Your task to perform on an android device: Go to display settings Image 0: 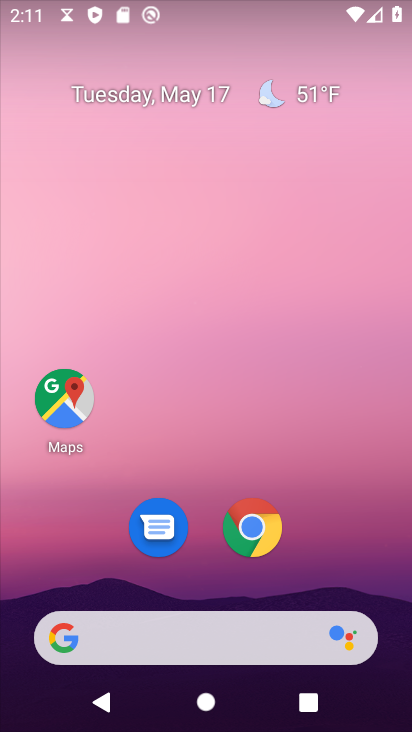
Step 0: drag from (346, 588) to (319, 64)
Your task to perform on an android device: Go to display settings Image 1: 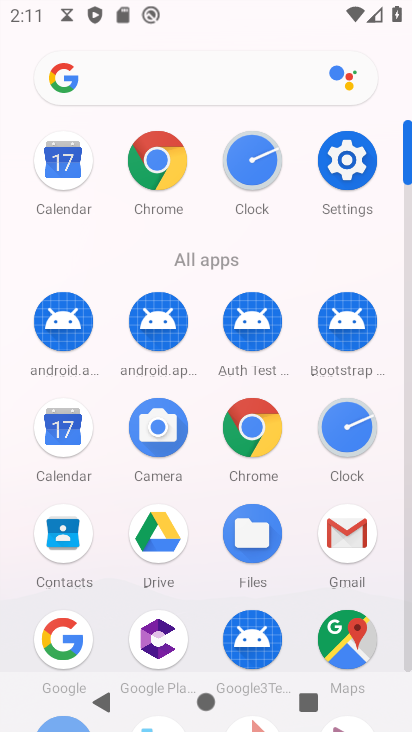
Step 1: click (347, 160)
Your task to perform on an android device: Go to display settings Image 2: 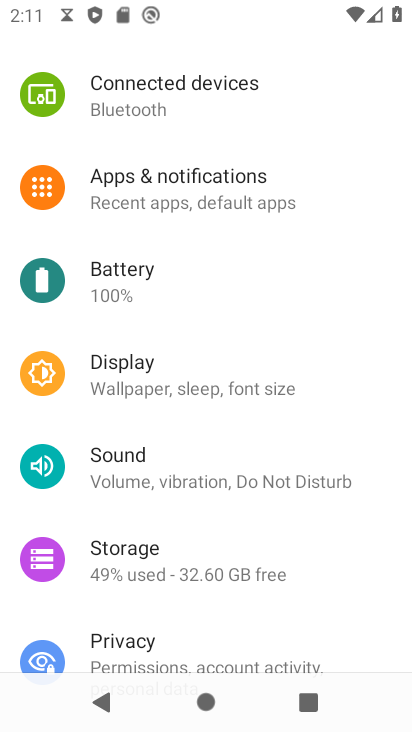
Step 2: click (182, 374)
Your task to perform on an android device: Go to display settings Image 3: 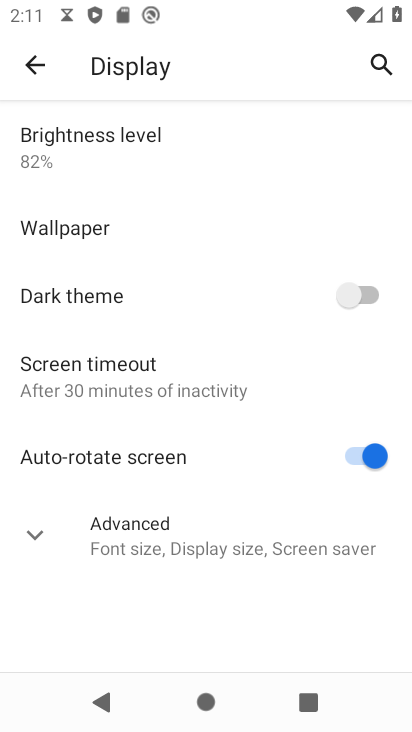
Step 3: task complete